Your task to perform on an android device: Open my contact list Image 0: 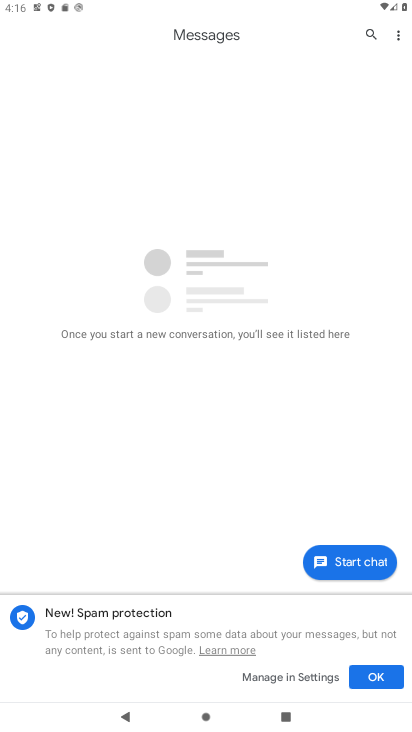
Step 0: press home button
Your task to perform on an android device: Open my contact list Image 1: 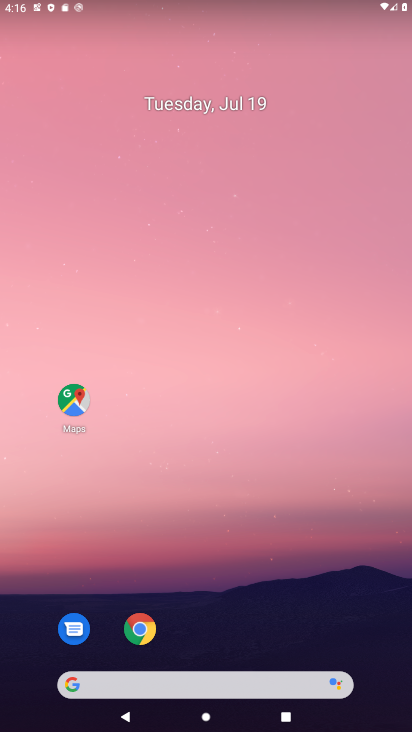
Step 1: drag from (166, 682) to (161, 218)
Your task to perform on an android device: Open my contact list Image 2: 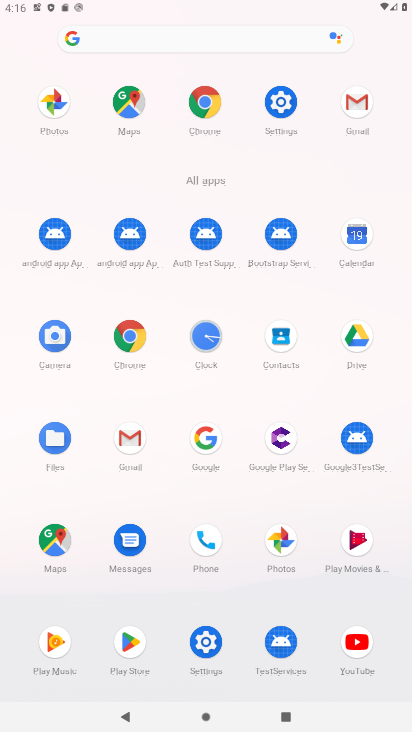
Step 2: click (285, 333)
Your task to perform on an android device: Open my contact list Image 3: 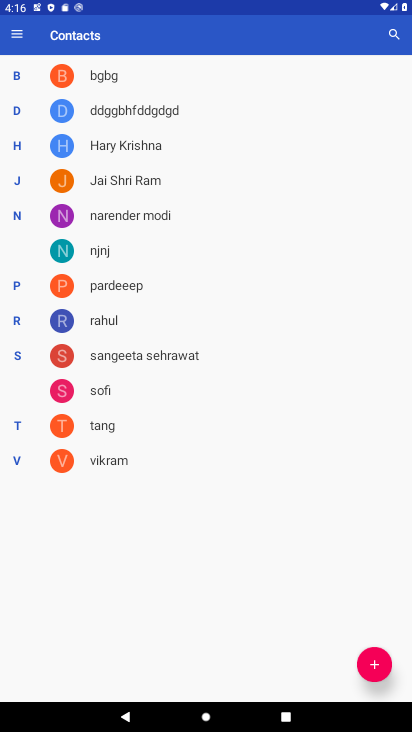
Step 3: task complete